Your task to perform on an android device: toggle location history Image 0: 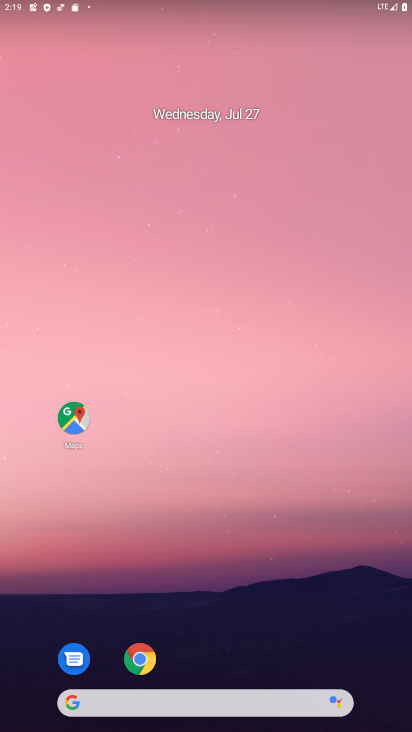
Step 0: drag from (194, 724) to (178, 6)
Your task to perform on an android device: toggle location history Image 1: 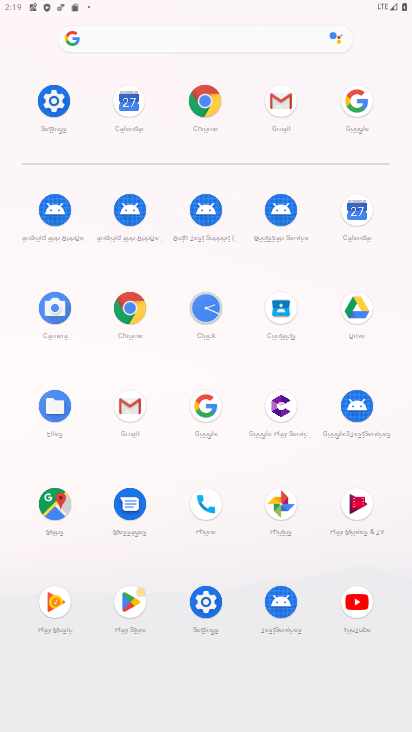
Step 1: click (64, 100)
Your task to perform on an android device: toggle location history Image 2: 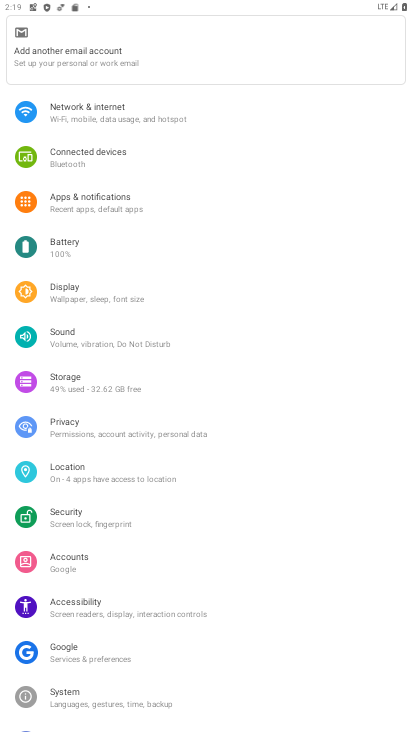
Step 2: click (70, 471)
Your task to perform on an android device: toggle location history Image 3: 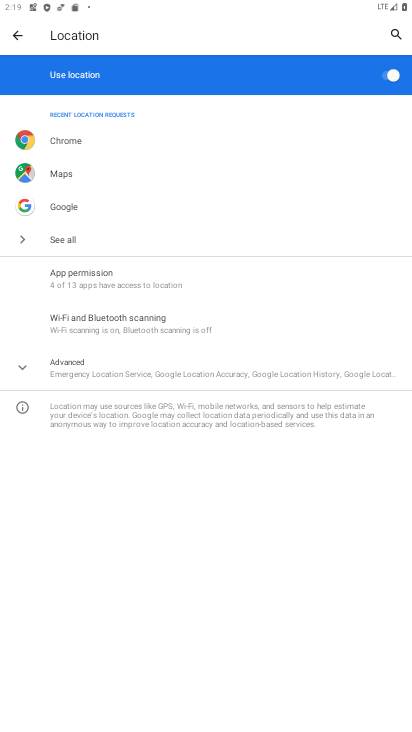
Step 3: click (89, 368)
Your task to perform on an android device: toggle location history Image 4: 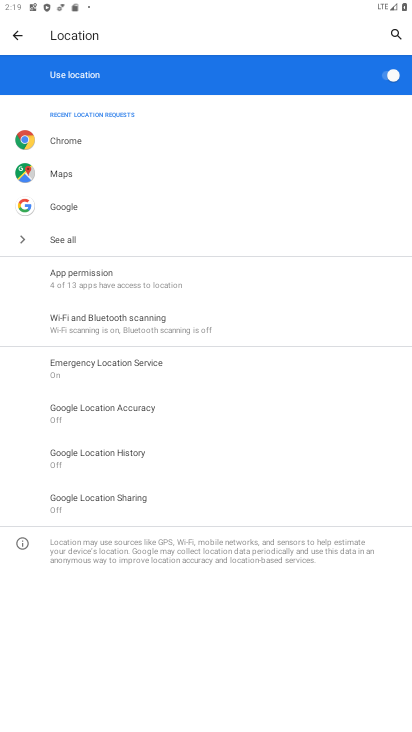
Step 4: click (82, 449)
Your task to perform on an android device: toggle location history Image 5: 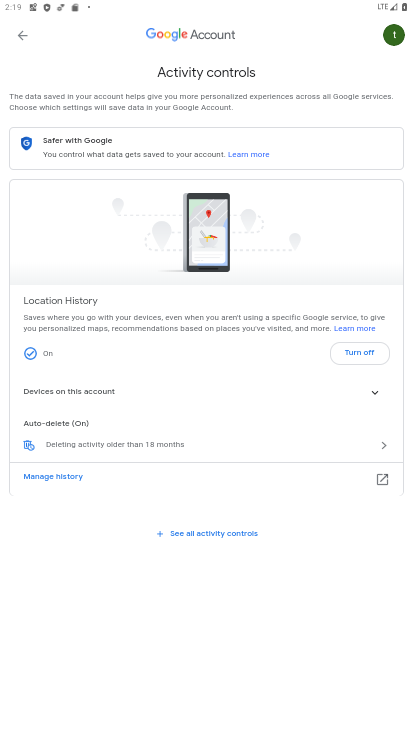
Step 5: click (355, 349)
Your task to perform on an android device: toggle location history Image 6: 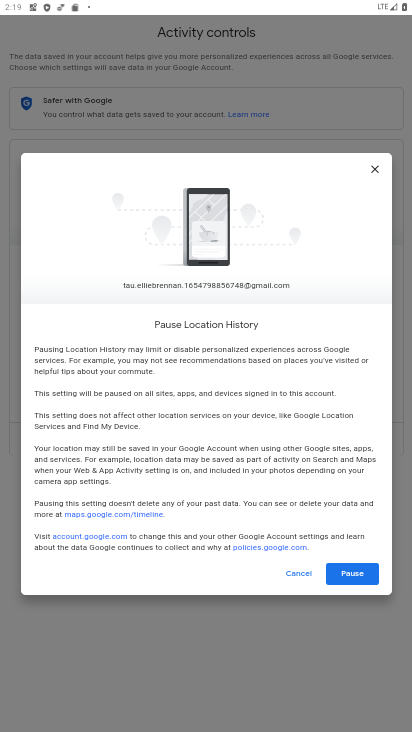
Step 6: click (350, 572)
Your task to perform on an android device: toggle location history Image 7: 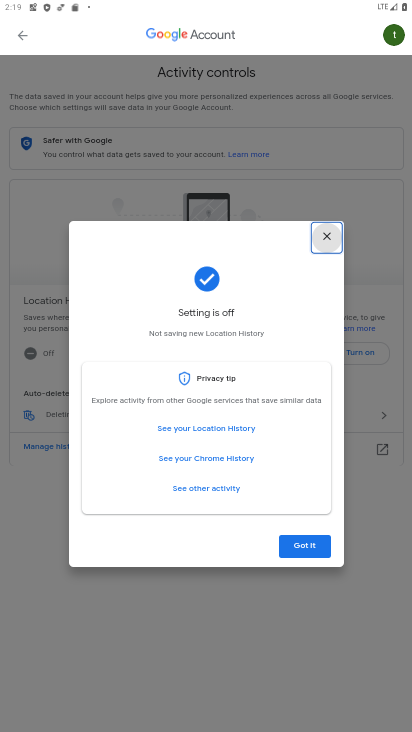
Step 7: click (306, 546)
Your task to perform on an android device: toggle location history Image 8: 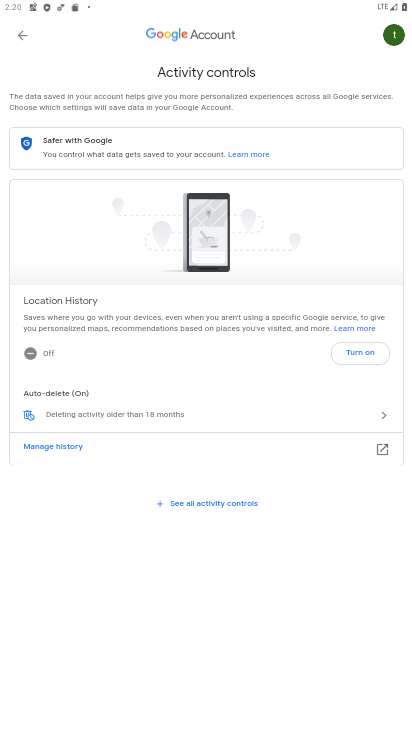
Step 8: task complete